Your task to perform on an android device: Go to battery settings Image 0: 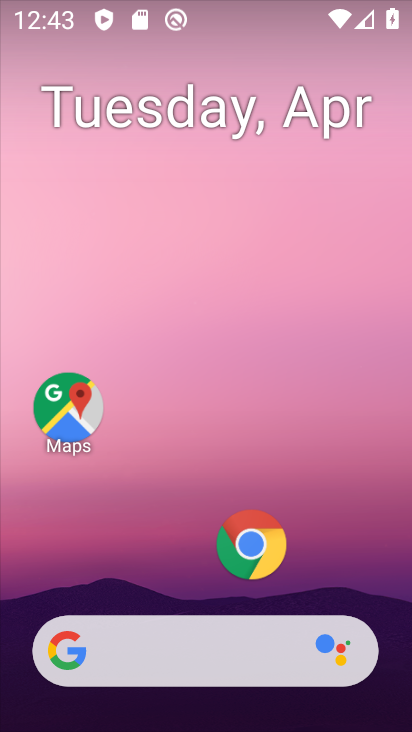
Step 0: drag from (197, 567) to (211, 243)
Your task to perform on an android device: Go to battery settings Image 1: 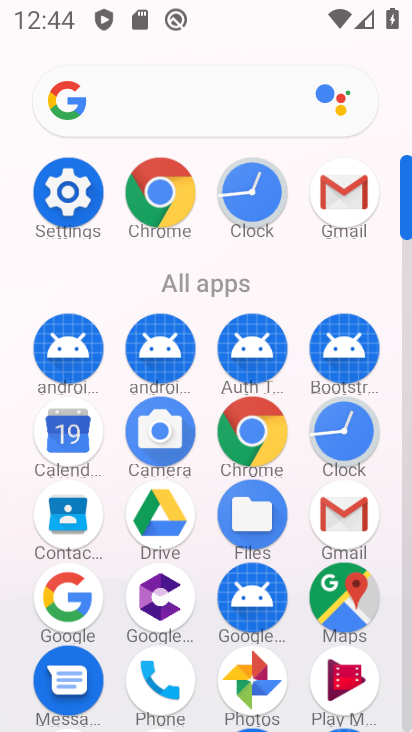
Step 1: click (55, 184)
Your task to perform on an android device: Go to battery settings Image 2: 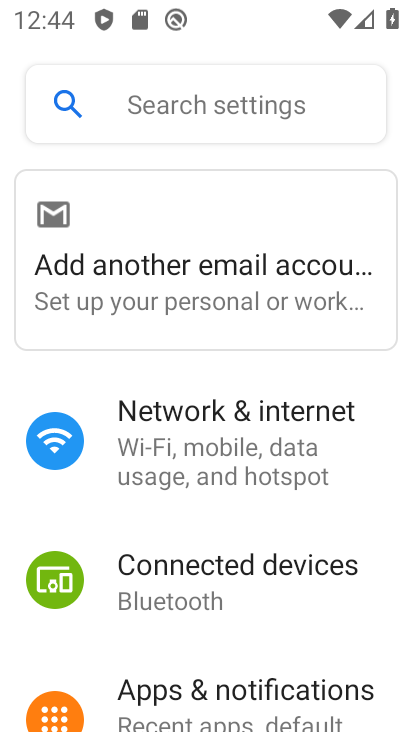
Step 2: drag from (252, 673) to (240, 162)
Your task to perform on an android device: Go to battery settings Image 3: 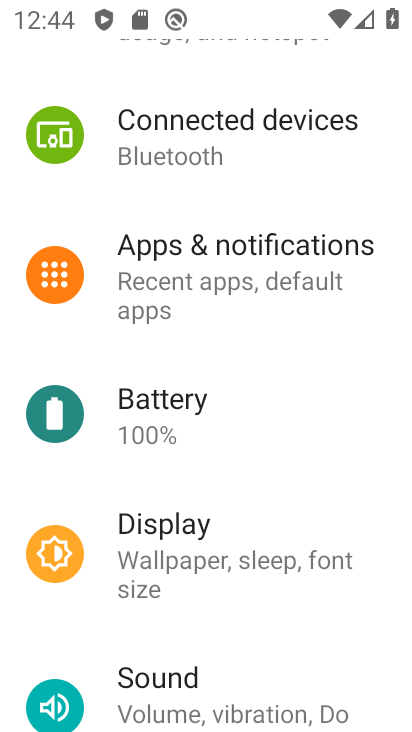
Step 3: click (194, 391)
Your task to perform on an android device: Go to battery settings Image 4: 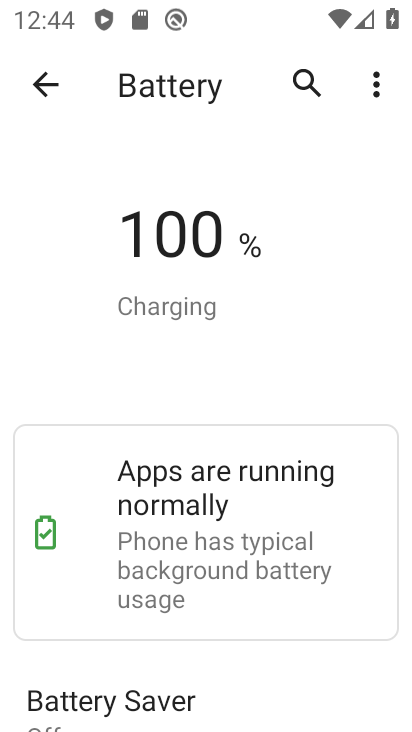
Step 4: click (241, 657)
Your task to perform on an android device: Go to battery settings Image 5: 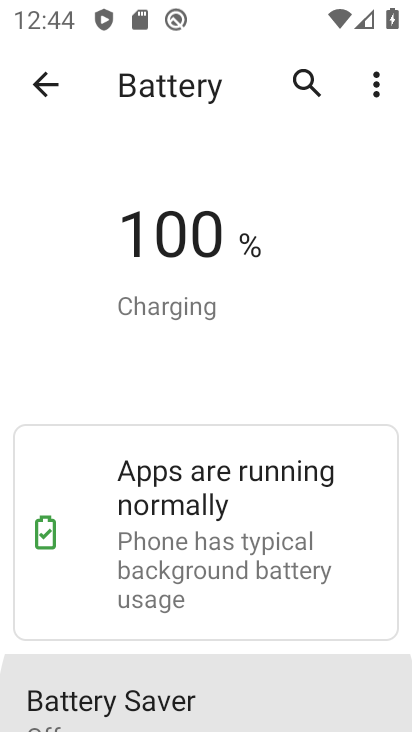
Step 5: task complete